Your task to perform on an android device: change keyboard looks Image 0: 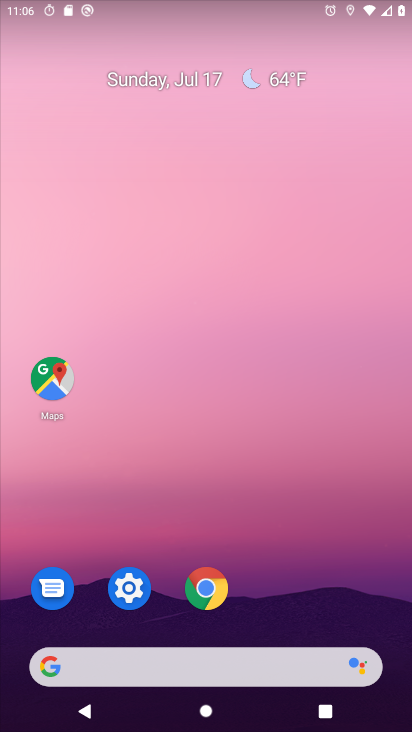
Step 0: drag from (309, 685) to (294, 132)
Your task to perform on an android device: change keyboard looks Image 1: 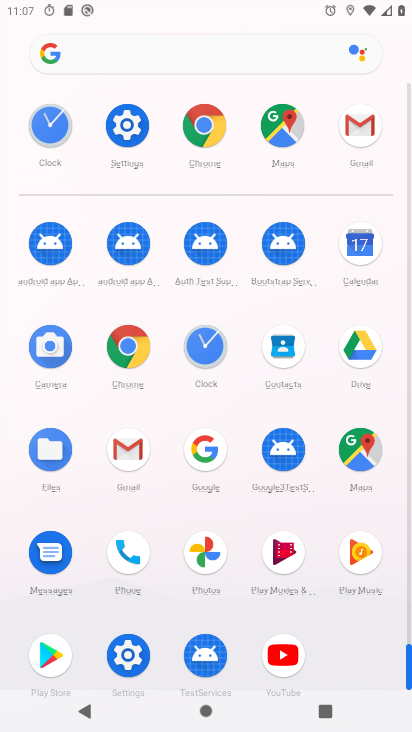
Step 1: click (134, 126)
Your task to perform on an android device: change keyboard looks Image 2: 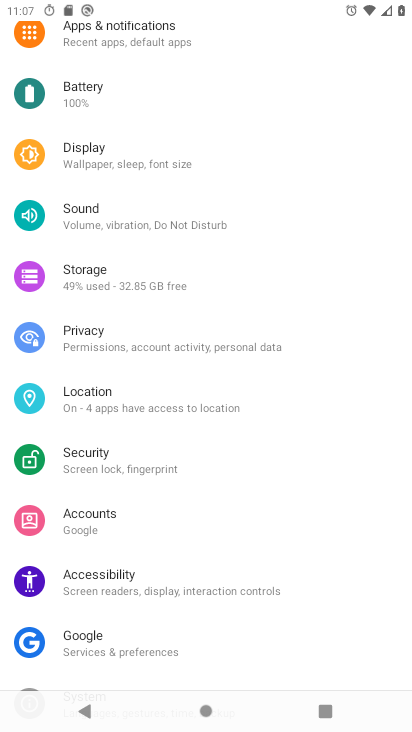
Step 2: drag from (129, 596) to (142, 322)
Your task to perform on an android device: change keyboard looks Image 3: 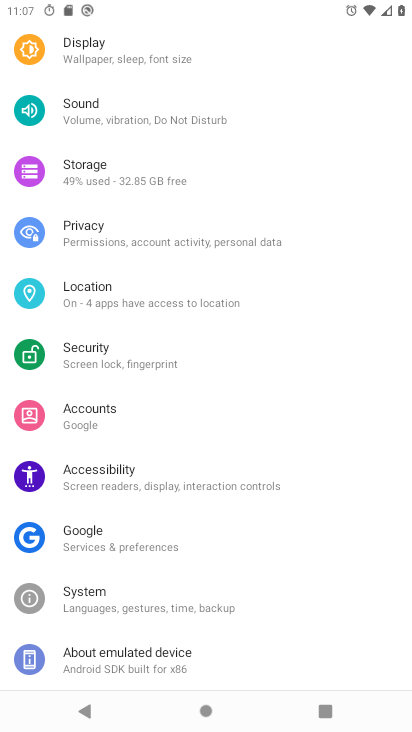
Step 3: click (88, 599)
Your task to perform on an android device: change keyboard looks Image 4: 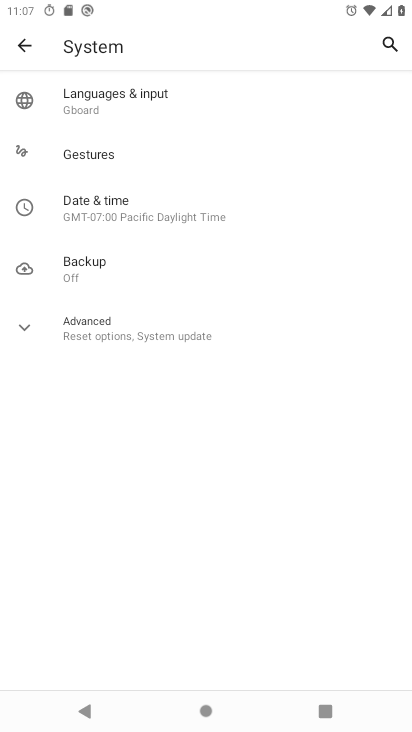
Step 4: click (76, 108)
Your task to perform on an android device: change keyboard looks Image 5: 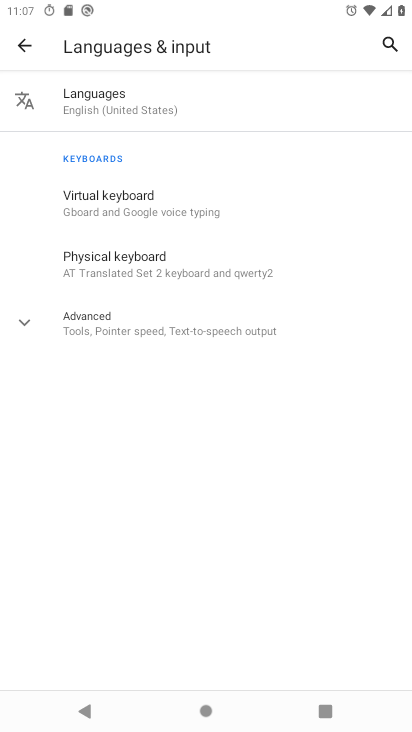
Step 5: click (98, 202)
Your task to perform on an android device: change keyboard looks Image 6: 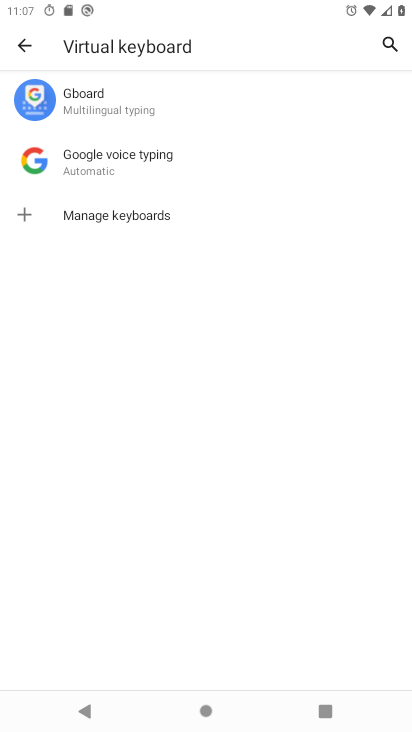
Step 6: click (81, 108)
Your task to perform on an android device: change keyboard looks Image 7: 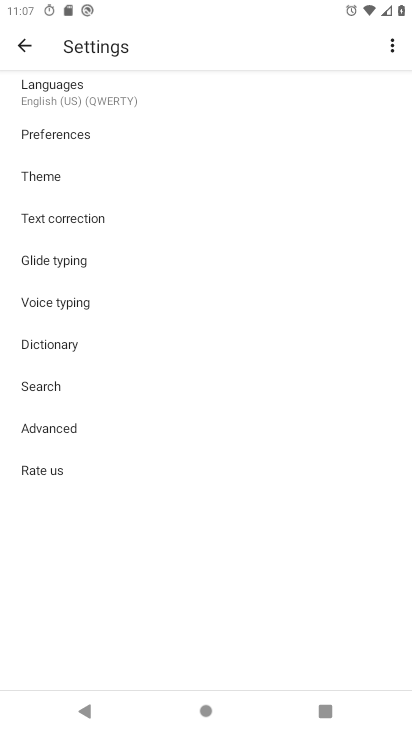
Step 7: click (41, 171)
Your task to perform on an android device: change keyboard looks Image 8: 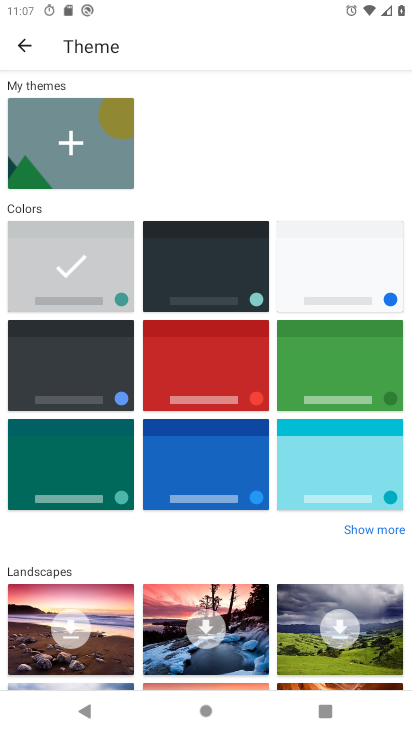
Step 8: click (78, 343)
Your task to perform on an android device: change keyboard looks Image 9: 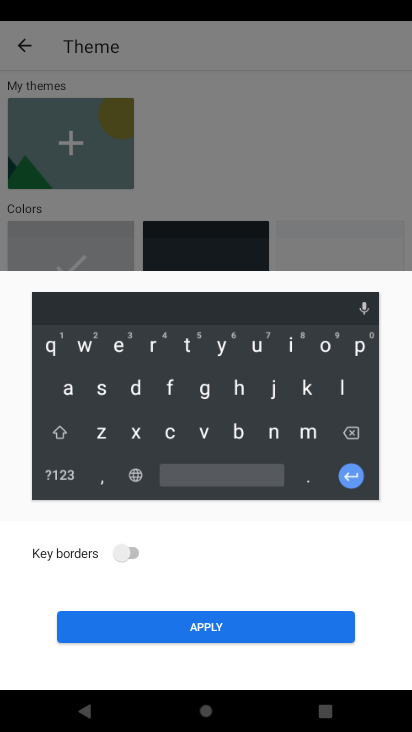
Step 9: click (243, 623)
Your task to perform on an android device: change keyboard looks Image 10: 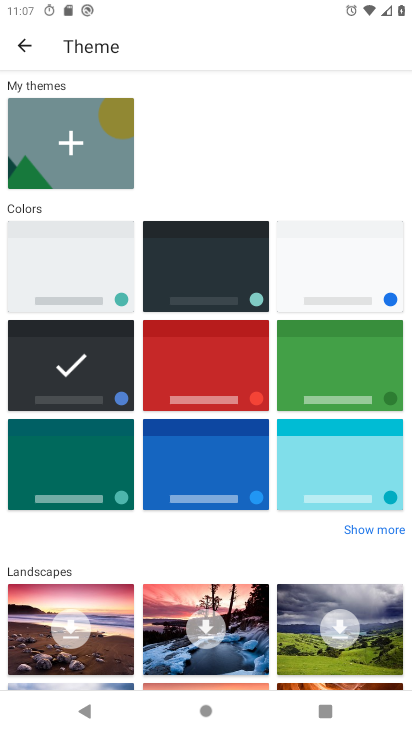
Step 10: click (58, 359)
Your task to perform on an android device: change keyboard looks Image 11: 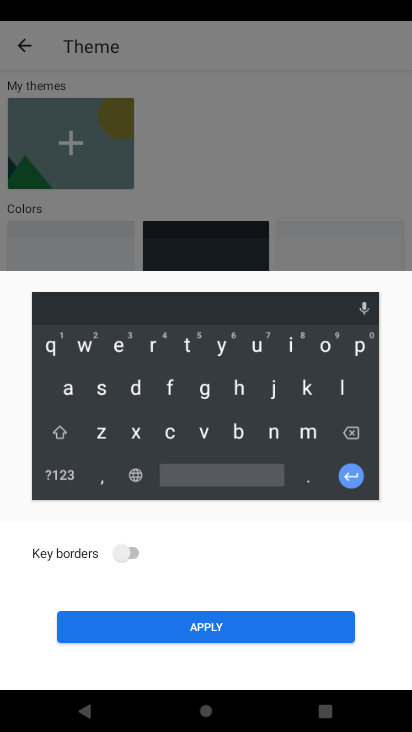
Step 11: click (194, 621)
Your task to perform on an android device: change keyboard looks Image 12: 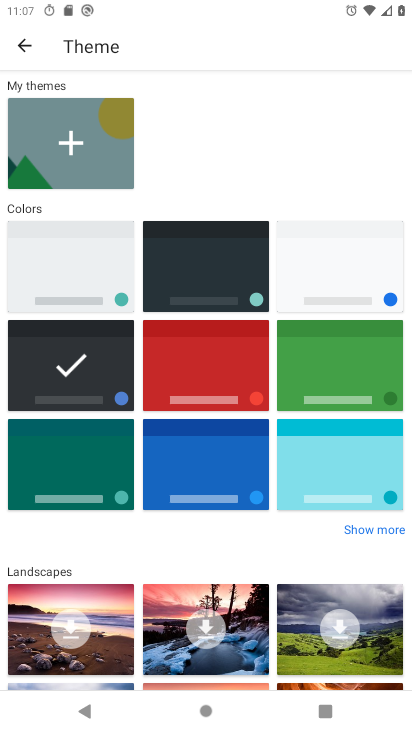
Step 12: task complete